Your task to perform on an android device: Search for Mexican restaurants on Maps Image 0: 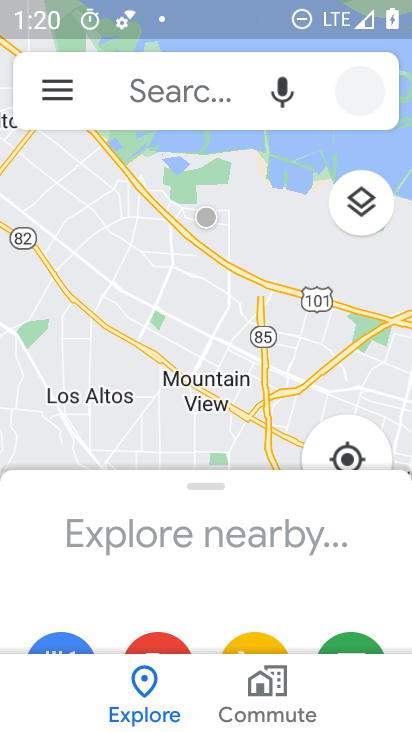
Step 0: press home button
Your task to perform on an android device: Search for Mexican restaurants on Maps Image 1: 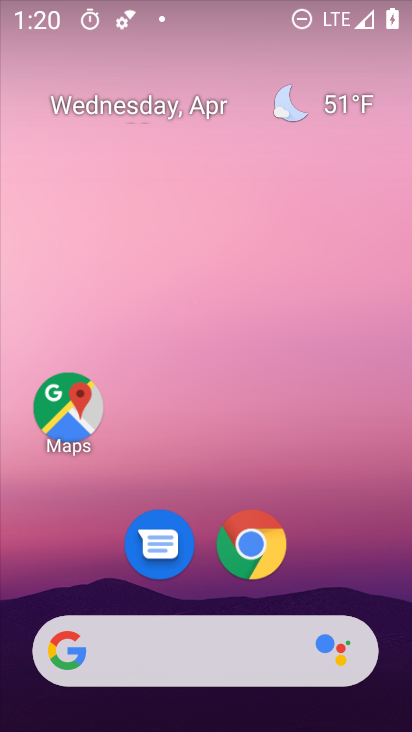
Step 1: drag from (355, 512) to (348, 227)
Your task to perform on an android device: Search for Mexican restaurants on Maps Image 2: 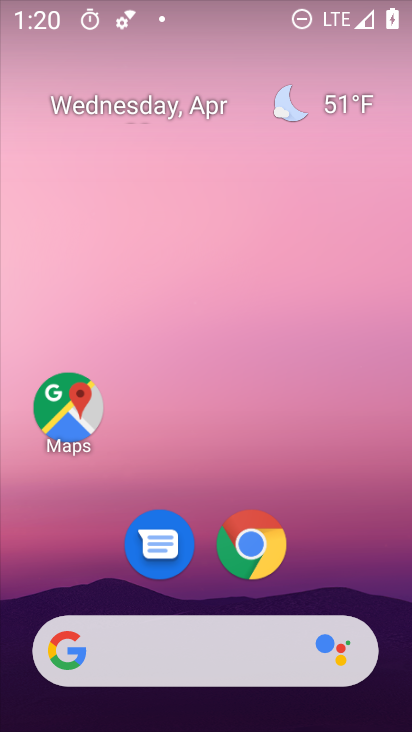
Step 2: drag from (359, 504) to (348, 182)
Your task to perform on an android device: Search for Mexican restaurants on Maps Image 3: 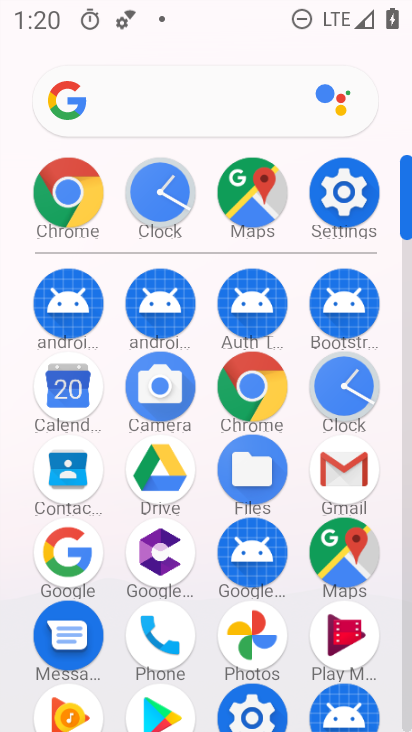
Step 3: click (364, 557)
Your task to perform on an android device: Search for Mexican restaurants on Maps Image 4: 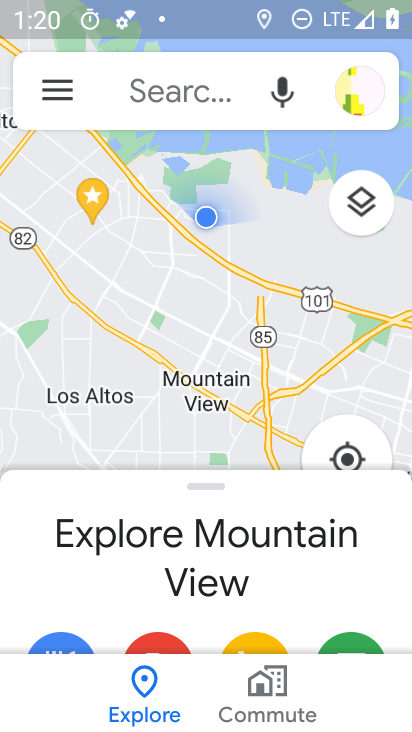
Step 4: click (196, 102)
Your task to perform on an android device: Search for Mexican restaurants on Maps Image 5: 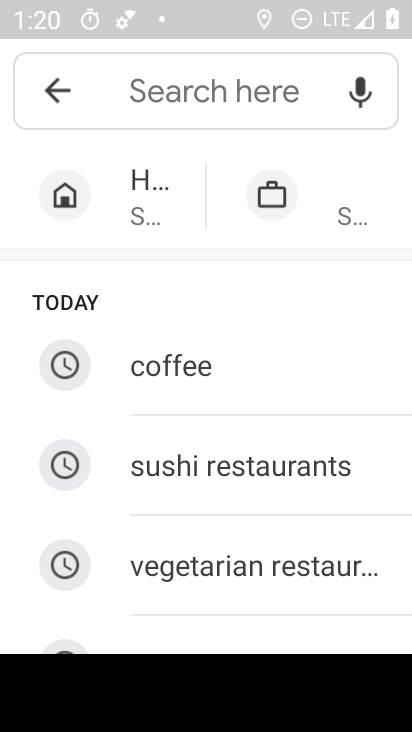
Step 5: type "mexcian restaurants"
Your task to perform on an android device: Search for Mexican restaurants on Maps Image 6: 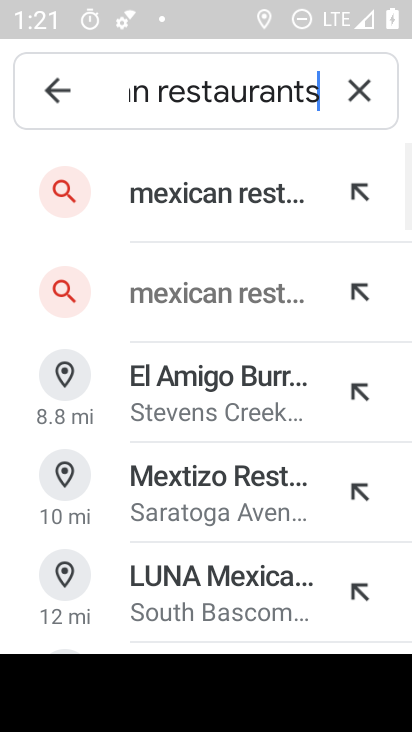
Step 6: click (240, 203)
Your task to perform on an android device: Search for Mexican restaurants on Maps Image 7: 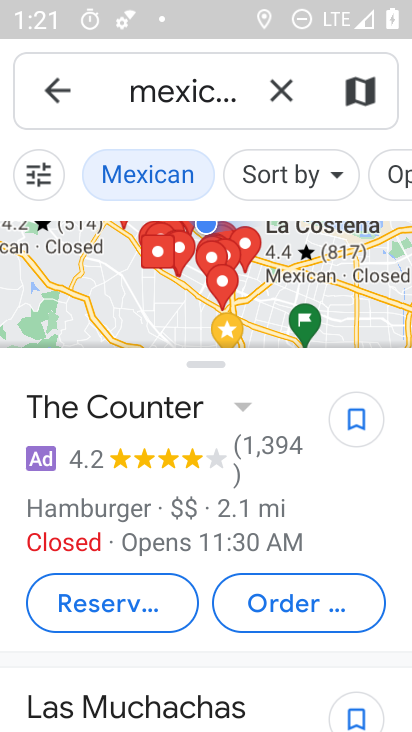
Step 7: task complete